Your task to perform on an android device: toggle wifi Image 0: 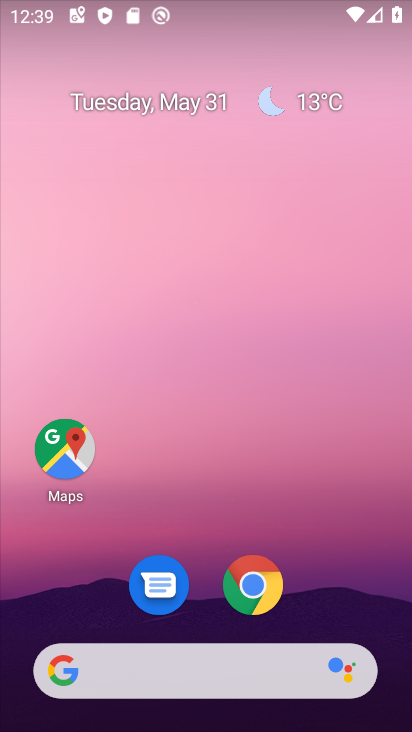
Step 0: drag from (213, 518) to (233, 61)
Your task to perform on an android device: toggle wifi Image 1: 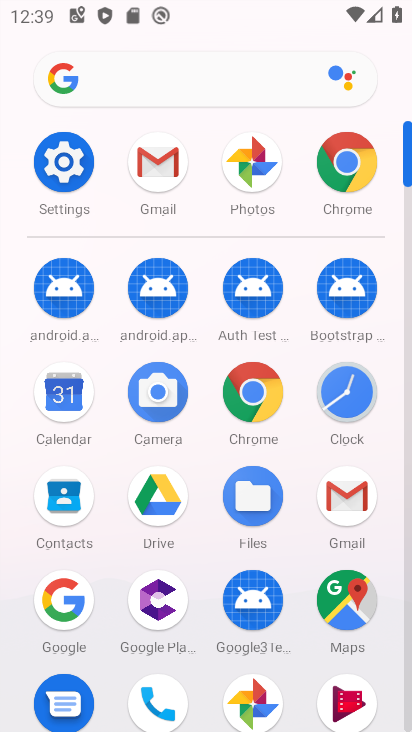
Step 1: click (75, 176)
Your task to perform on an android device: toggle wifi Image 2: 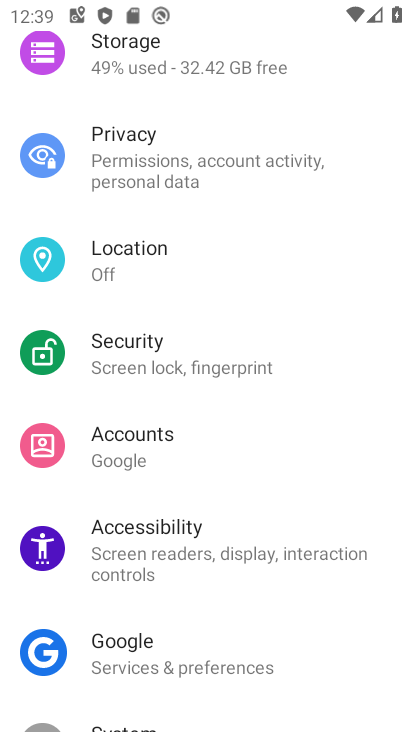
Step 2: drag from (218, 119) to (266, 623)
Your task to perform on an android device: toggle wifi Image 3: 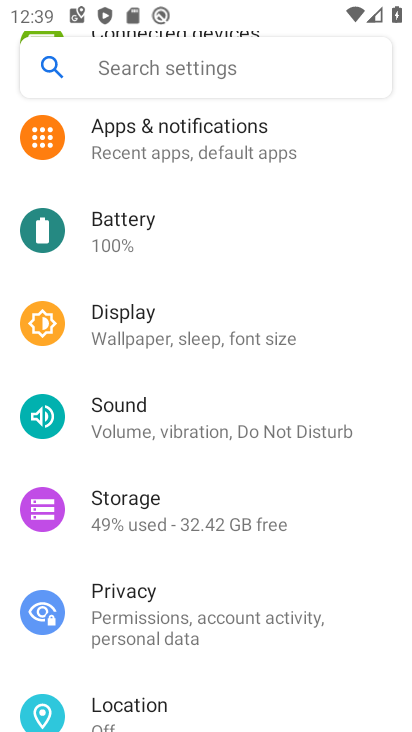
Step 3: drag from (247, 267) to (245, 626)
Your task to perform on an android device: toggle wifi Image 4: 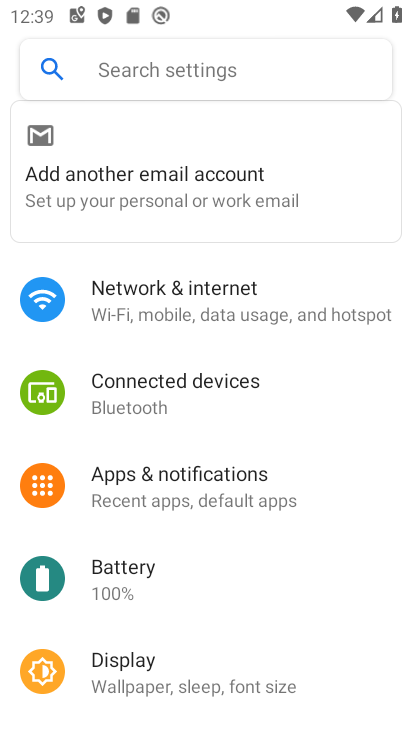
Step 4: click (250, 296)
Your task to perform on an android device: toggle wifi Image 5: 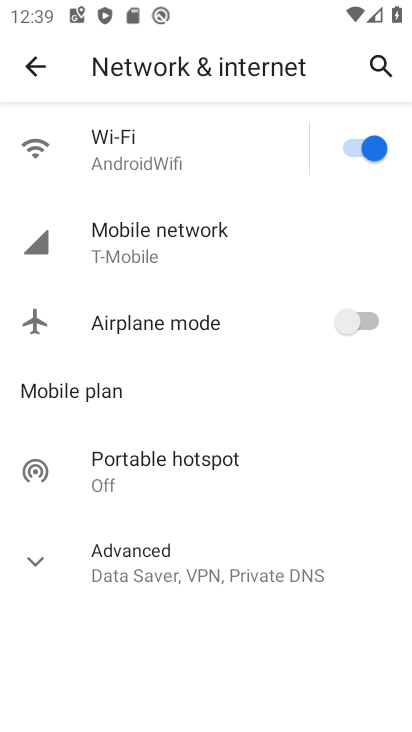
Step 5: click (346, 148)
Your task to perform on an android device: toggle wifi Image 6: 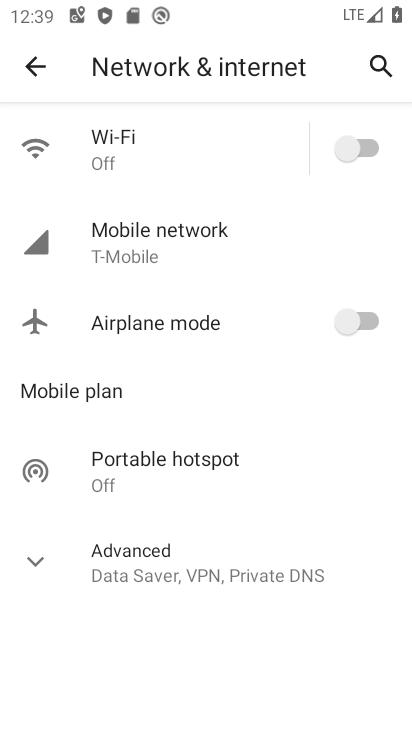
Step 6: task complete